Your task to perform on an android device: check android version Image 0: 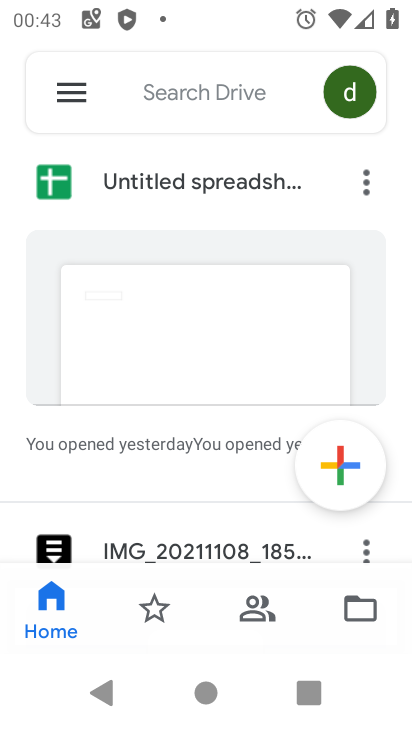
Step 0: press home button
Your task to perform on an android device: check android version Image 1: 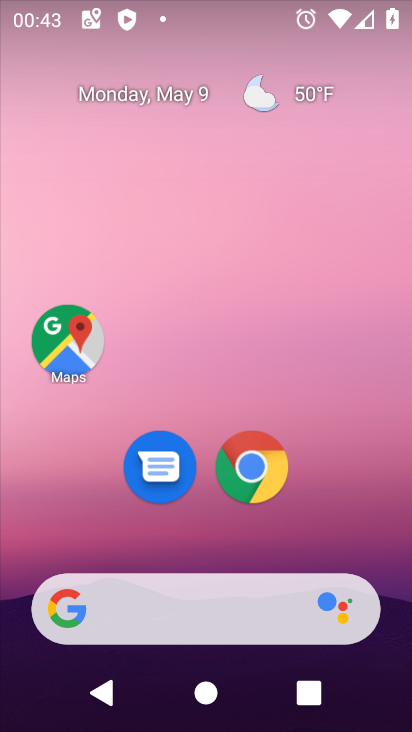
Step 1: drag from (208, 547) to (252, 0)
Your task to perform on an android device: check android version Image 2: 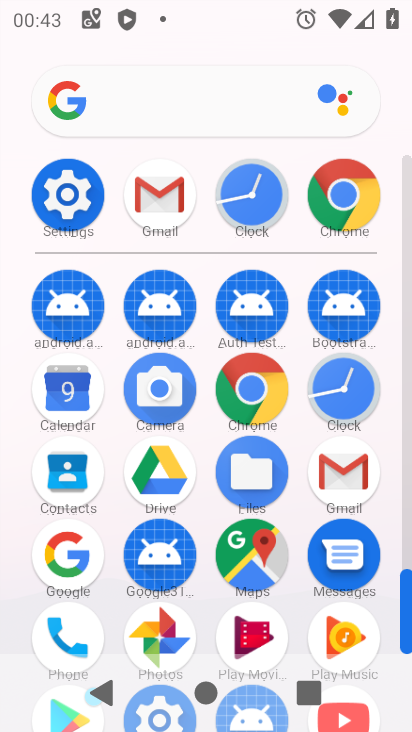
Step 2: click (64, 187)
Your task to perform on an android device: check android version Image 3: 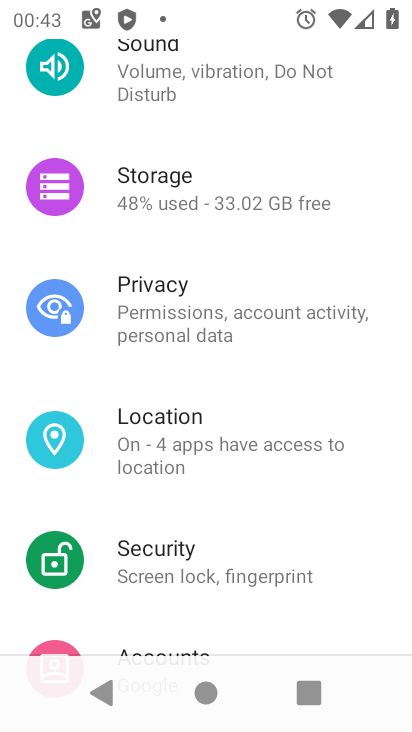
Step 3: drag from (185, 619) to (224, 62)
Your task to perform on an android device: check android version Image 4: 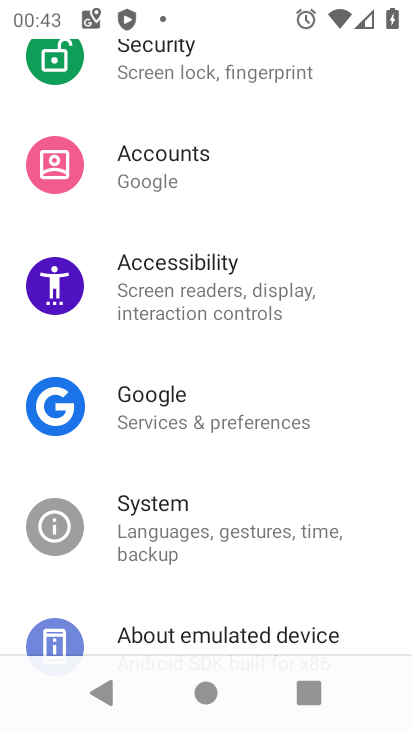
Step 4: drag from (196, 598) to (211, 145)
Your task to perform on an android device: check android version Image 5: 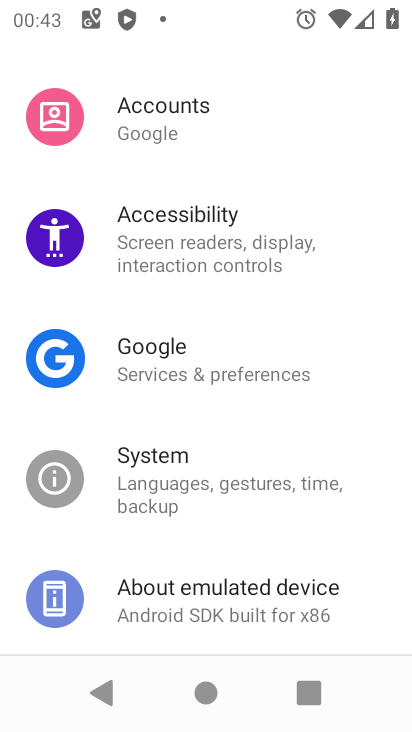
Step 5: click (220, 609)
Your task to perform on an android device: check android version Image 6: 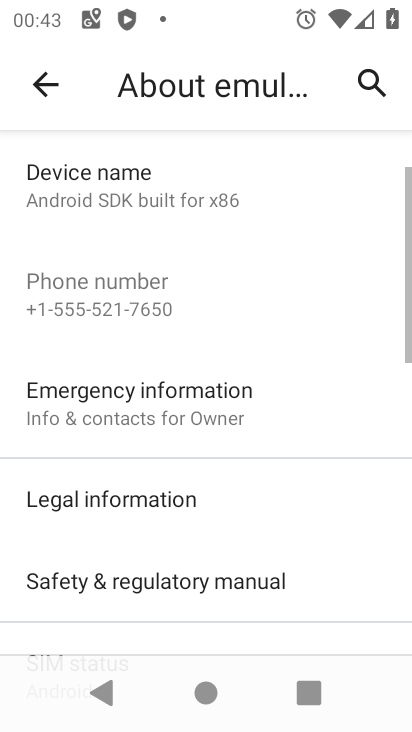
Step 6: drag from (225, 614) to (260, 137)
Your task to perform on an android device: check android version Image 7: 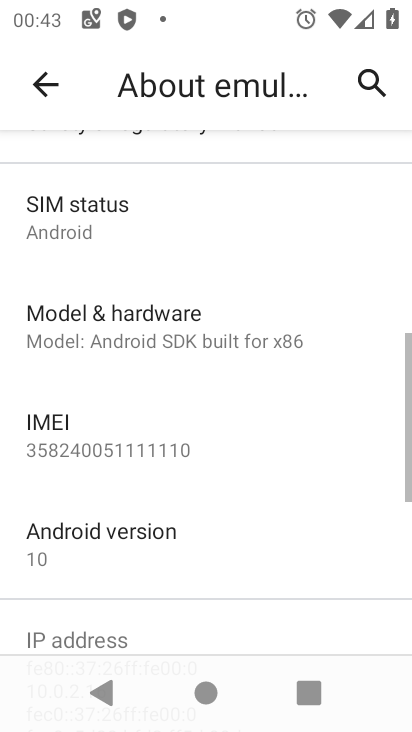
Step 7: click (102, 563)
Your task to perform on an android device: check android version Image 8: 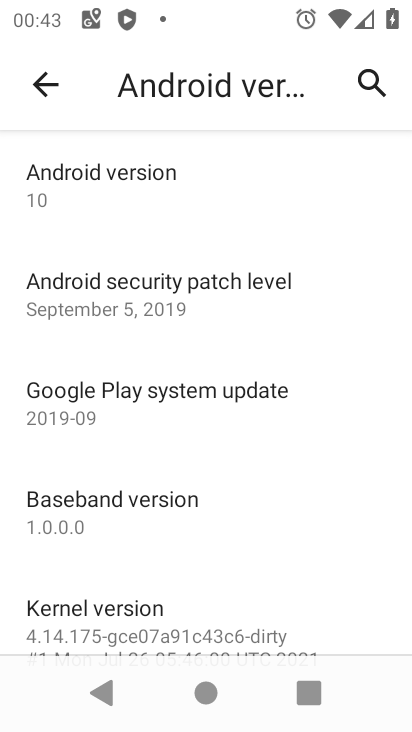
Step 8: task complete